Your task to perform on an android device: Turn off the flashlight Image 0: 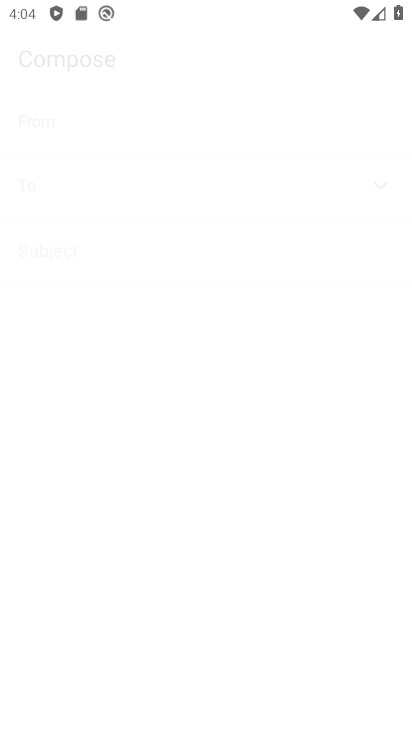
Step 0: drag from (203, 633) to (274, 71)
Your task to perform on an android device: Turn off the flashlight Image 1: 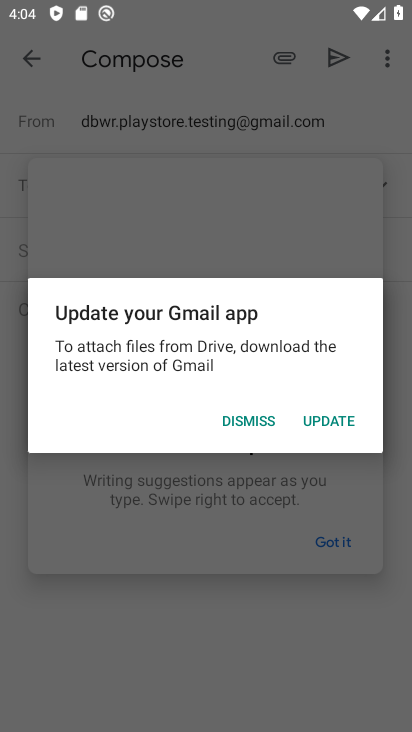
Step 1: task complete